Your task to perform on an android device: set the stopwatch Image 0: 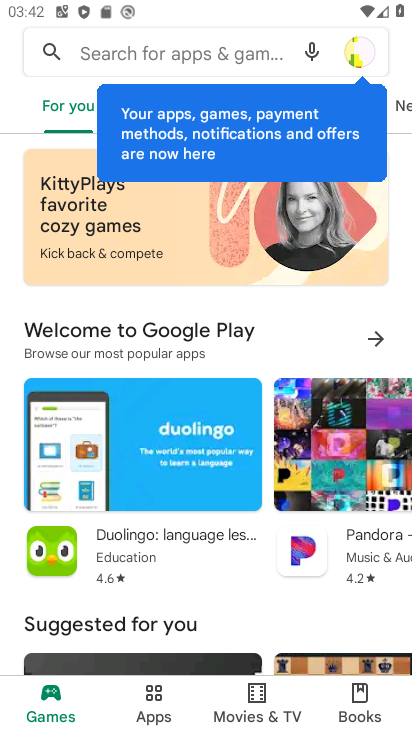
Step 0: press home button
Your task to perform on an android device: set the stopwatch Image 1: 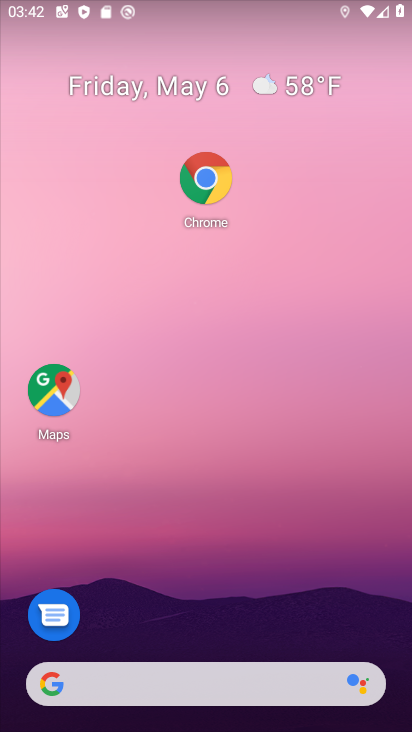
Step 1: click (103, 45)
Your task to perform on an android device: set the stopwatch Image 2: 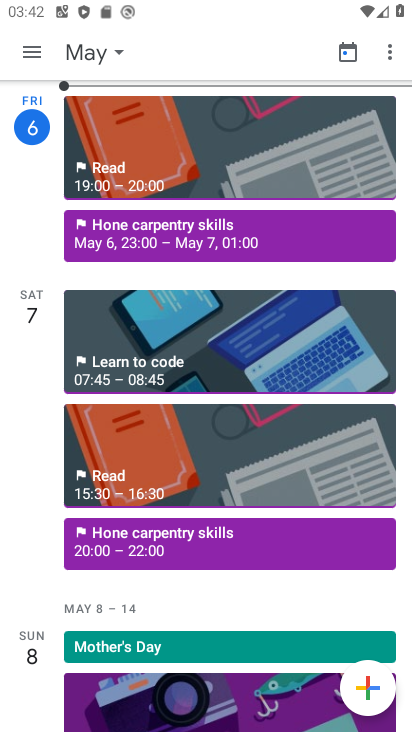
Step 2: press home button
Your task to perform on an android device: set the stopwatch Image 3: 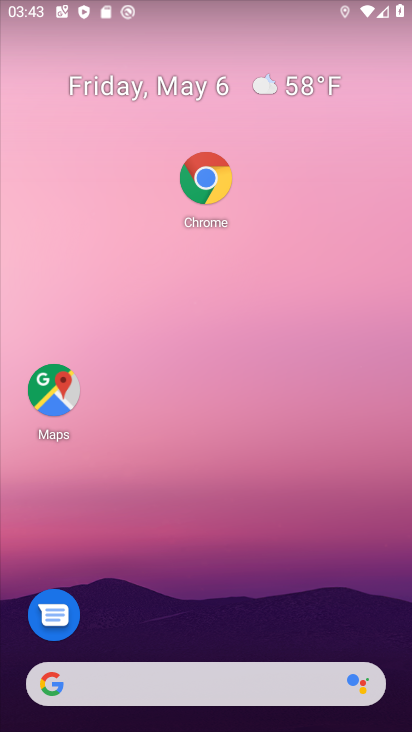
Step 3: drag from (320, 552) to (123, 222)
Your task to perform on an android device: set the stopwatch Image 4: 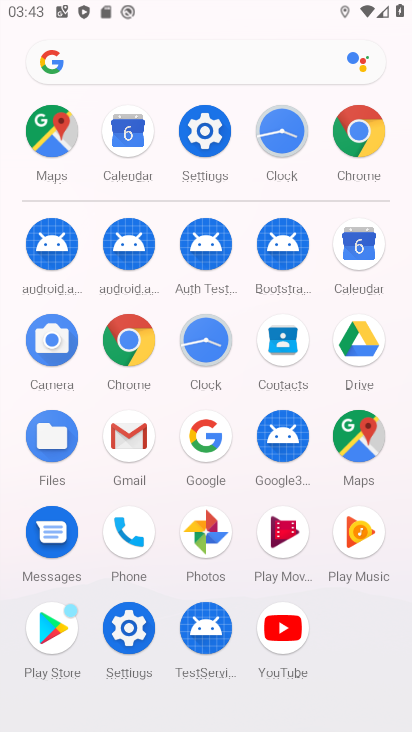
Step 4: click (273, 135)
Your task to perform on an android device: set the stopwatch Image 5: 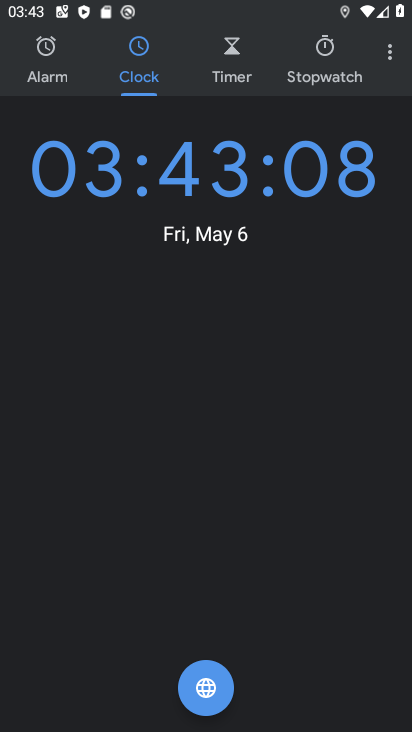
Step 5: click (328, 51)
Your task to perform on an android device: set the stopwatch Image 6: 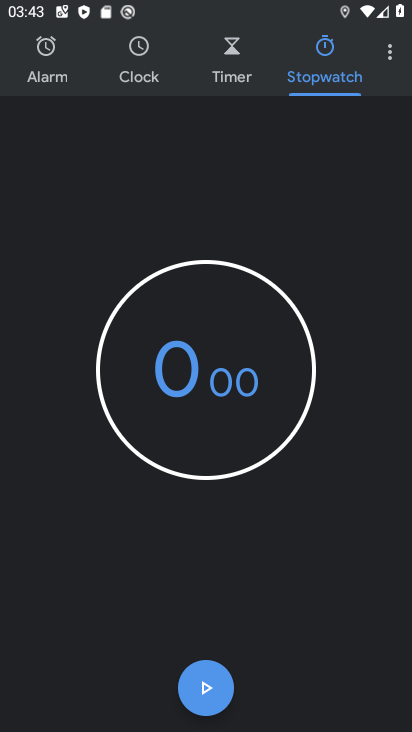
Step 6: click (208, 679)
Your task to perform on an android device: set the stopwatch Image 7: 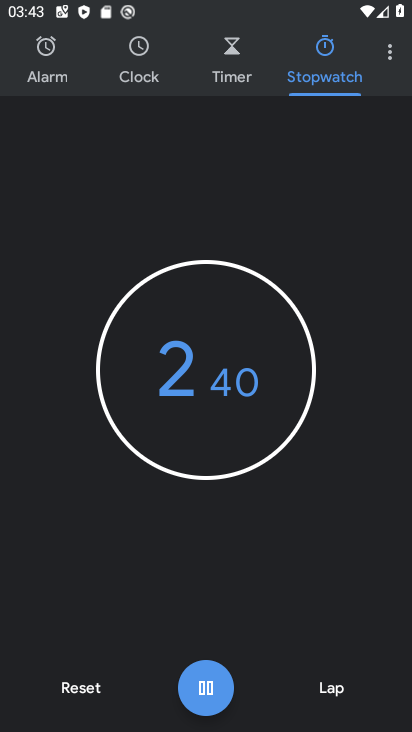
Step 7: click (200, 700)
Your task to perform on an android device: set the stopwatch Image 8: 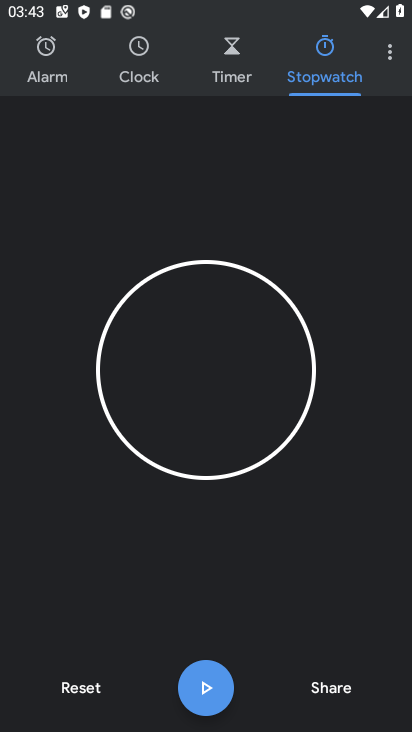
Step 8: task complete